Your task to perform on an android device: Open maps Image 0: 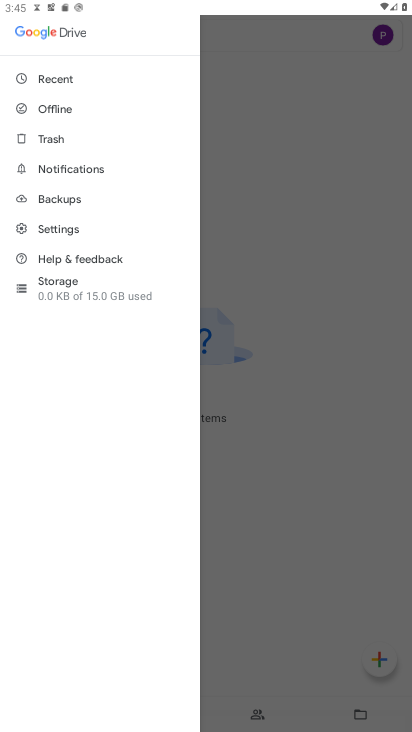
Step 0: press home button
Your task to perform on an android device: Open maps Image 1: 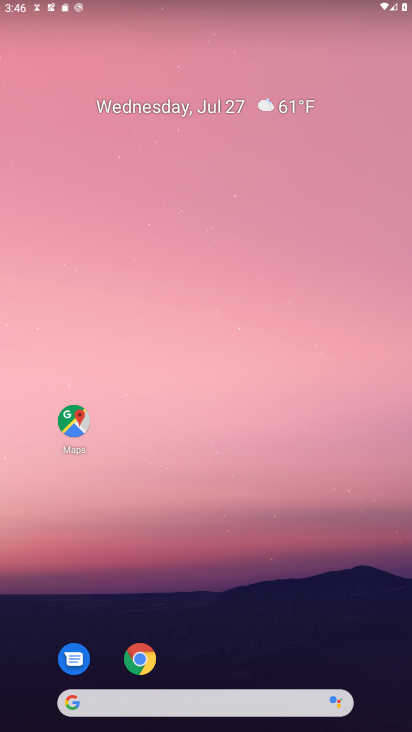
Step 1: click (77, 423)
Your task to perform on an android device: Open maps Image 2: 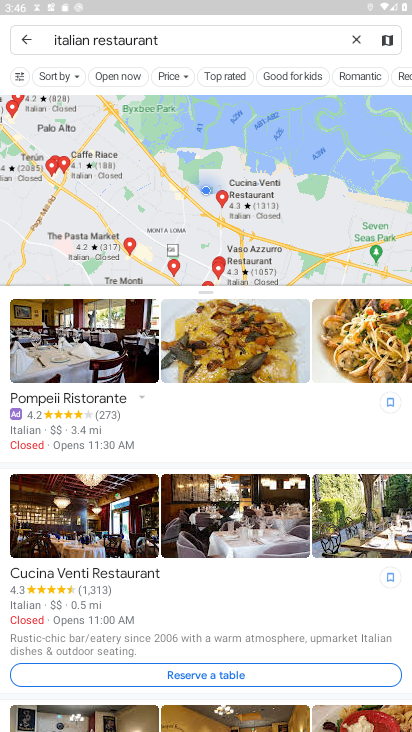
Step 2: task complete